Your task to perform on an android device: Open privacy settings Image 0: 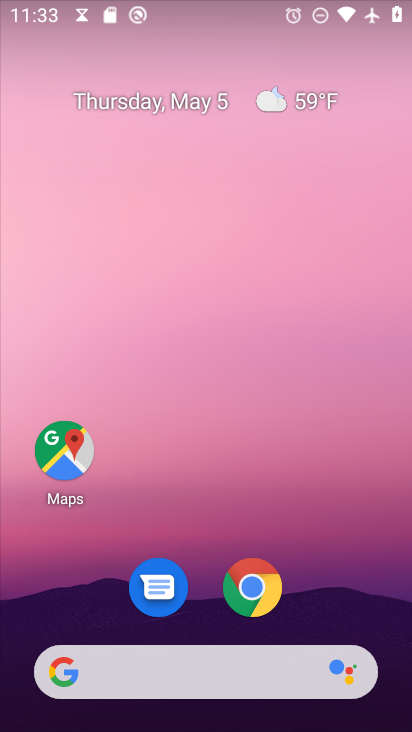
Step 0: drag from (358, 600) to (360, 27)
Your task to perform on an android device: Open privacy settings Image 1: 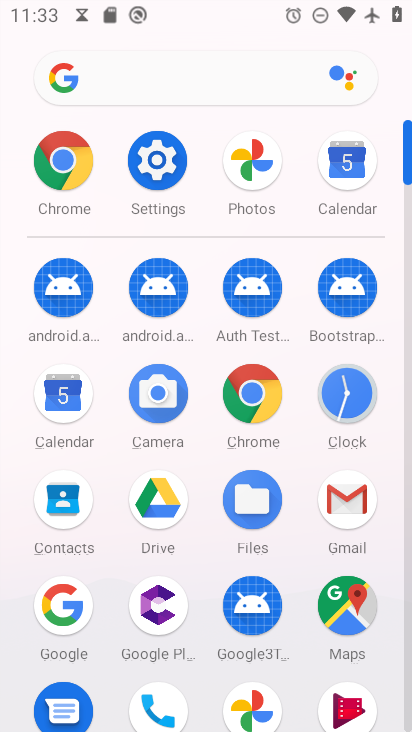
Step 1: click (60, 157)
Your task to perform on an android device: Open privacy settings Image 2: 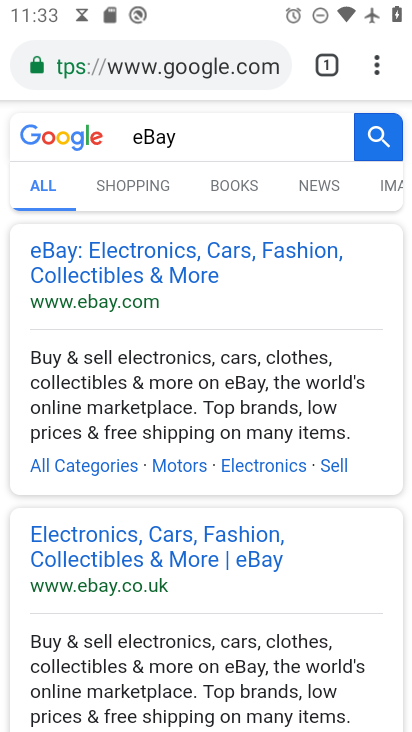
Step 2: drag from (375, 73) to (185, 632)
Your task to perform on an android device: Open privacy settings Image 3: 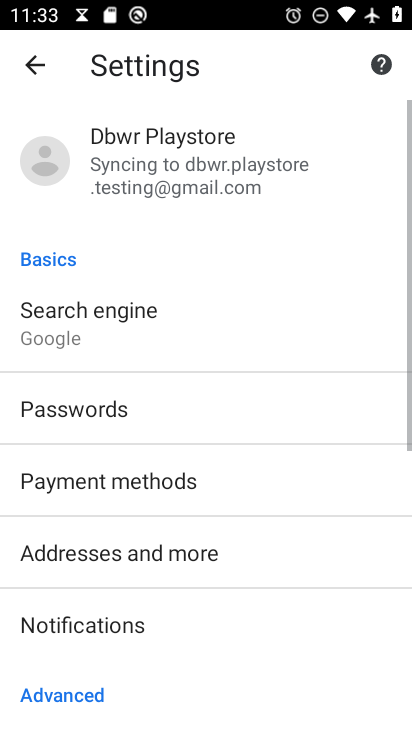
Step 3: drag from (212, 644) to (241, 140)
Your task to perform on an android device: Open privacy settings Image 4: 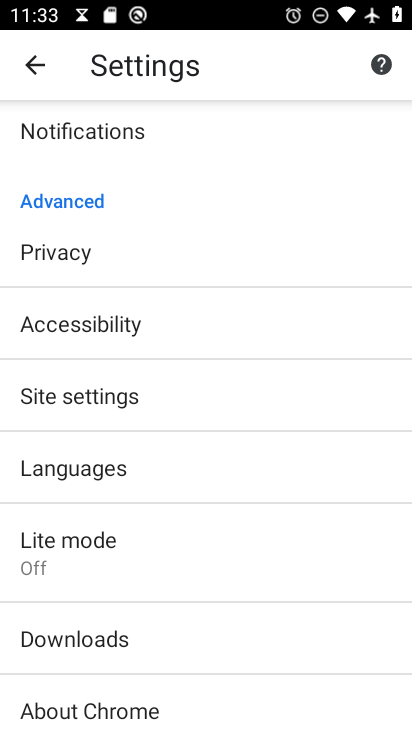
Step 4: click (106, 260)
Your task to perform on an android device: Open privacy settings Image 5: 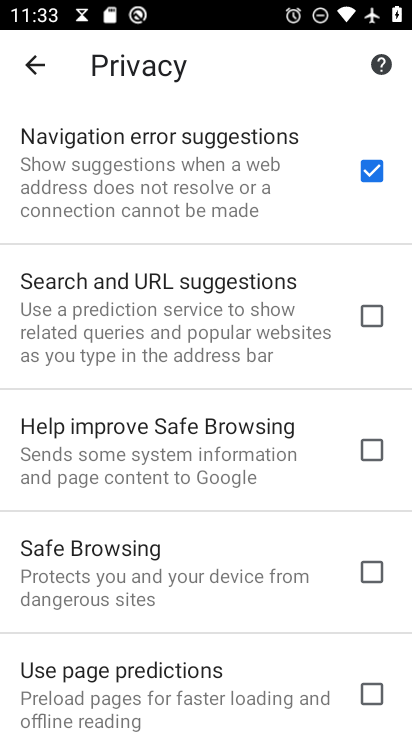
Step 5: task complete